Your task to perform on an android device: Open CNN.com Image 0: 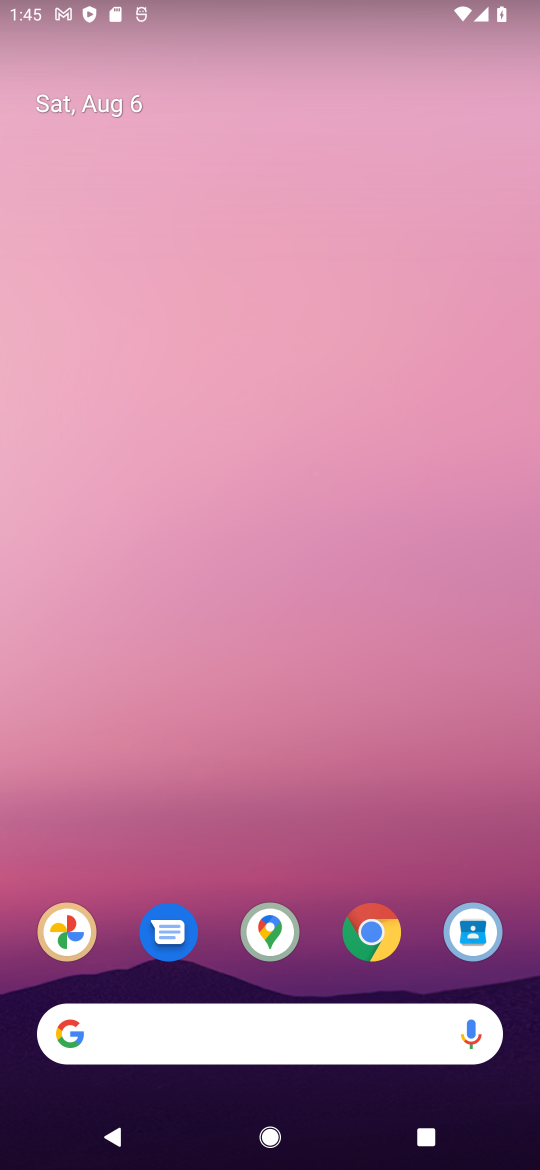
Step 0: click (389, 924)
Your task to perform on an android device: Open CNN.com Image 1: 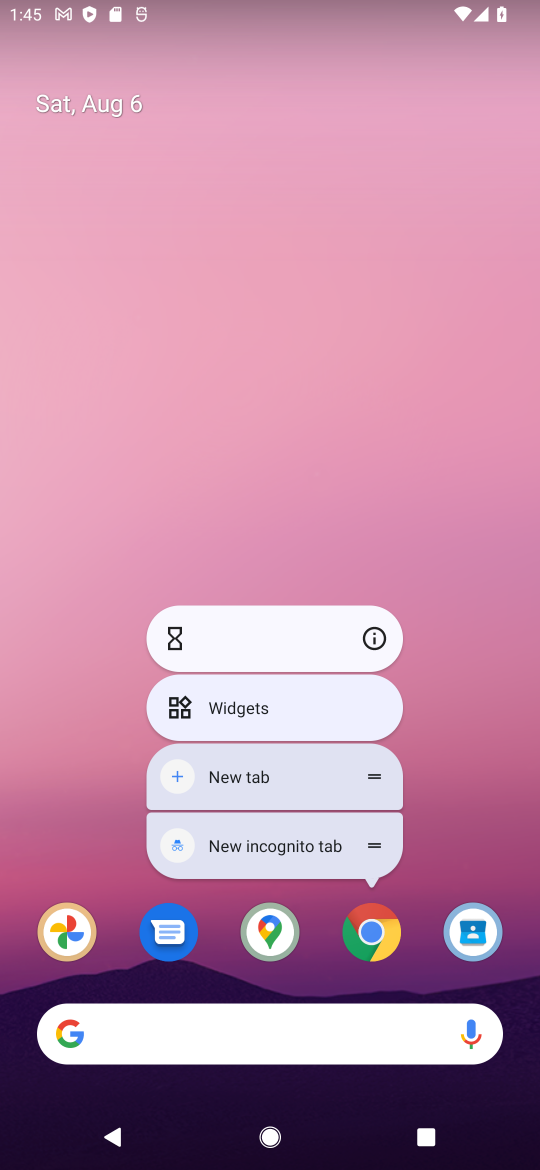
Step 1: click (382, 926)
Your task to perform on an android device: Open CNN.com Image 2: 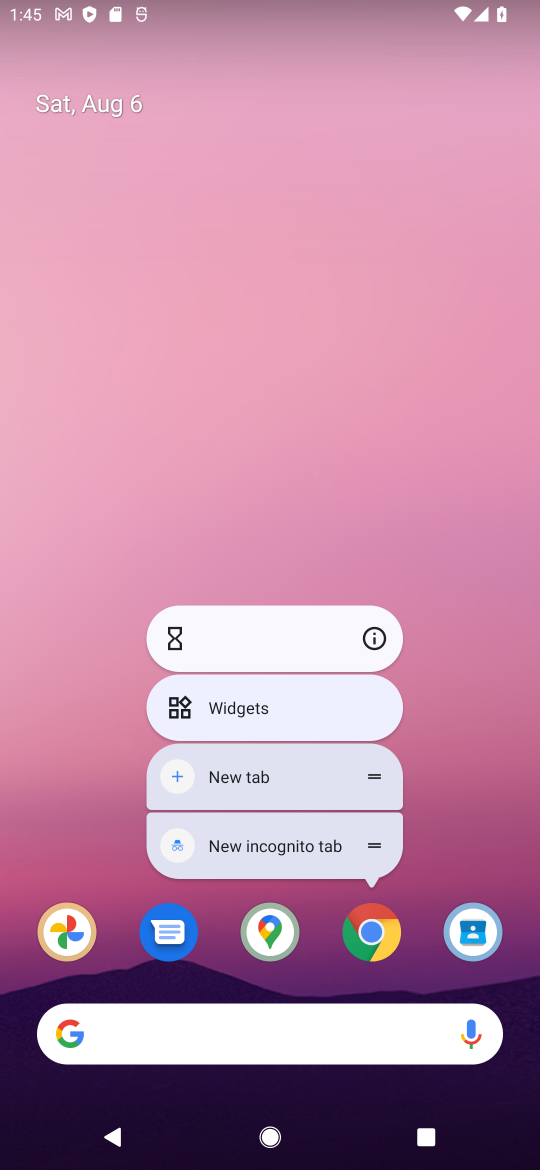
Step 2: click (382, 926)
Your task to perform on an android device: Open CNN.com Image 3: 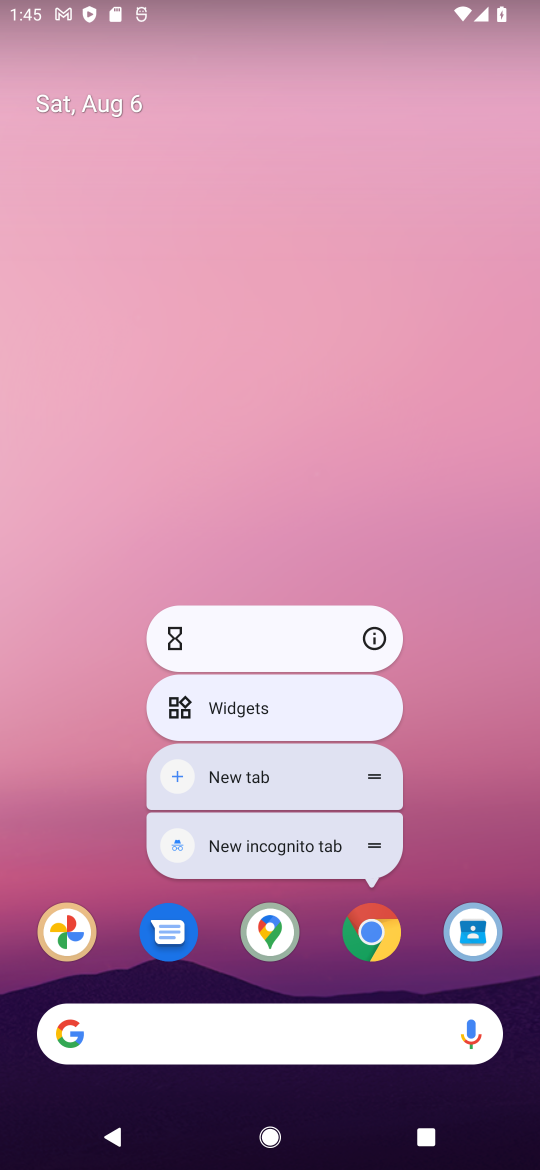
Step 3: click (382, 926)
Your task to perform on an android device: Open CNN.com Image 4: 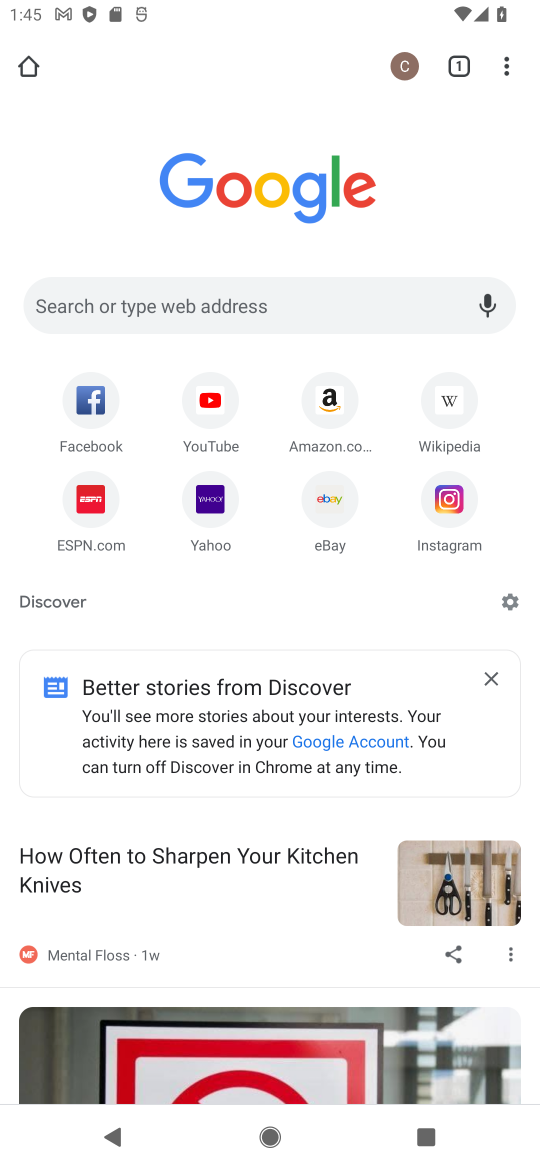
Step 4: click (199, 304)
Your task to perform on an android device: Open CNN.com Image 5: 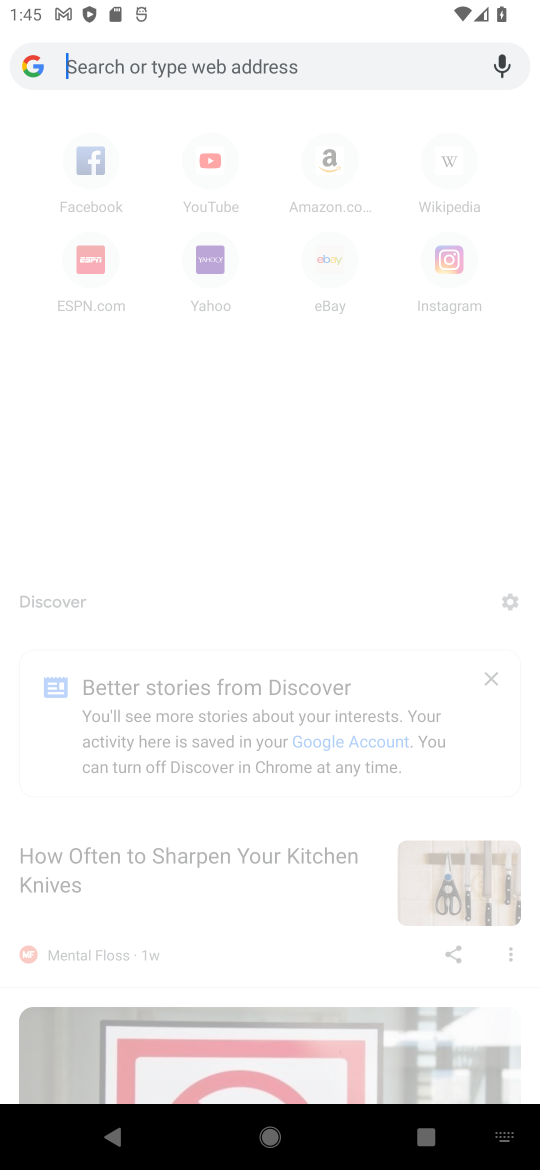
Step 5: type " CNN.com"
Your task to perform on an android device: Open CNN.com Image 6: 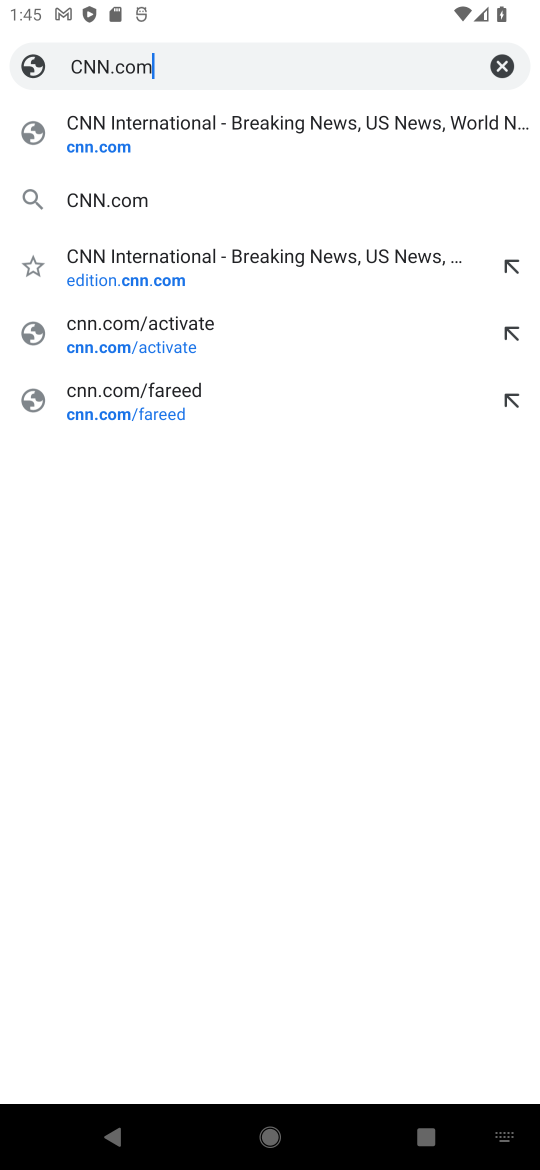
Step 6: click (93, 152)
Your task to perform on an android device: Open CNN.com Image 7: 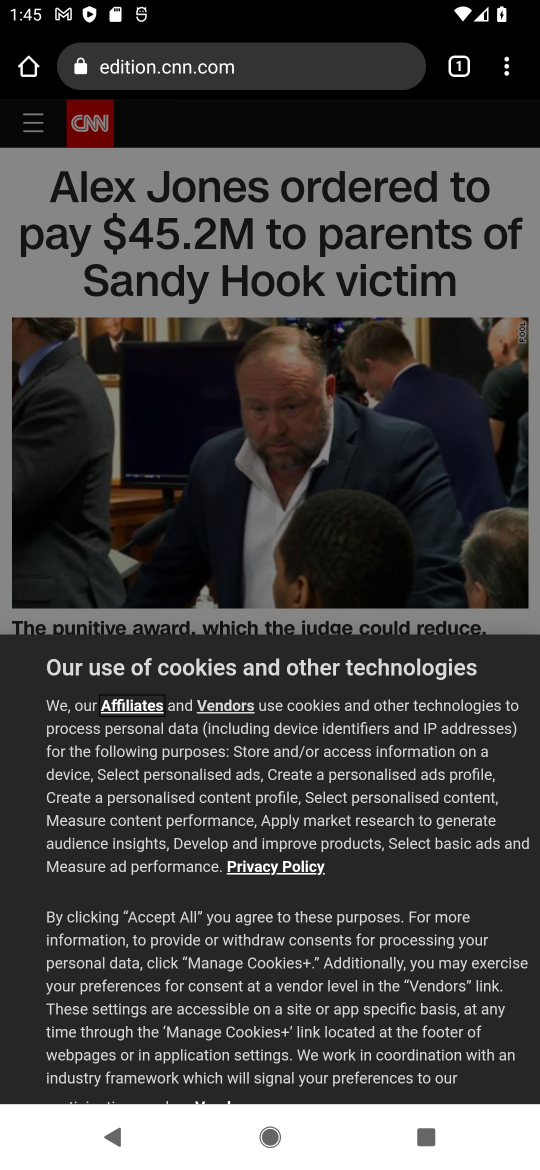
Step 7: task complete